Your task to perform on an android device: remove spam from my inbox in the gmail app Image 0: 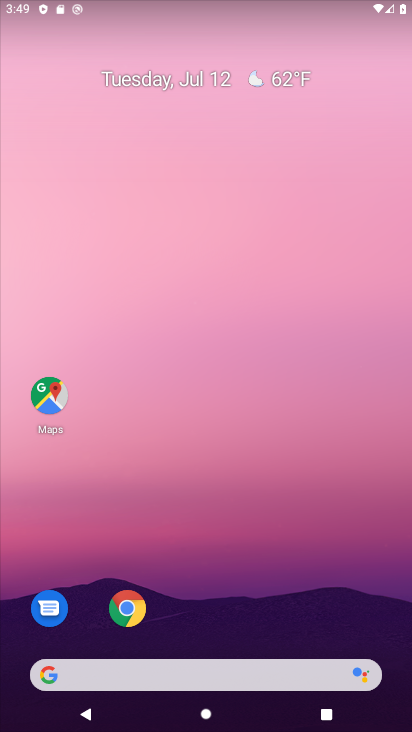
Step 0: drag from (235, 530) to (333, 171)
Your task to perform on an android device: remove spam from my inbox in the gmail app Image 1: 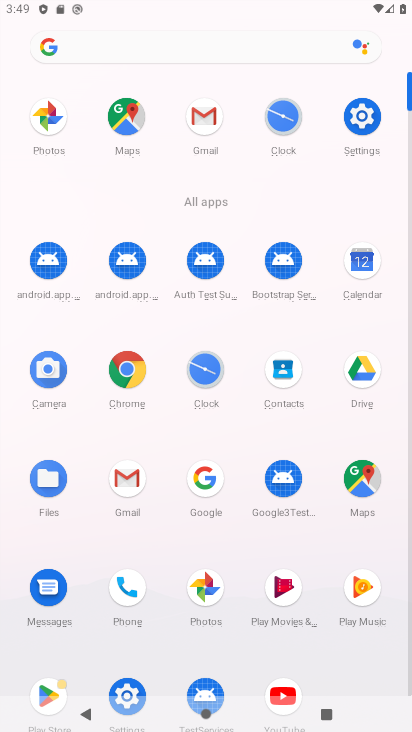
Step 1: click (124, 497)
Your task to perform on an android device: remove spam from my inbox in the gmail app Image 2: 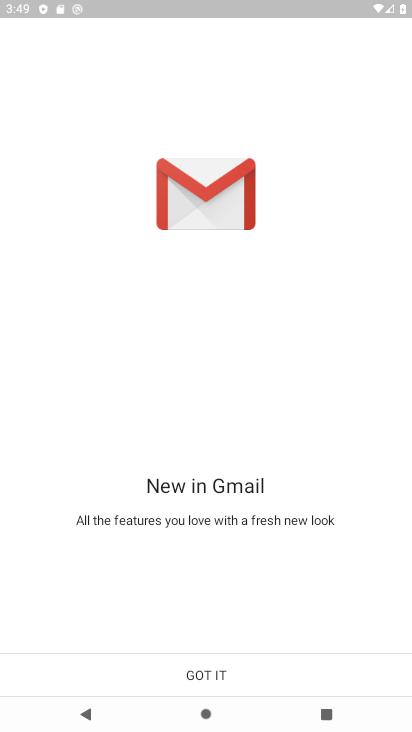
Step 2: click (217, 677)
Your task to perform on an android device: remove spam from my inbox in the gmail app Image 3: 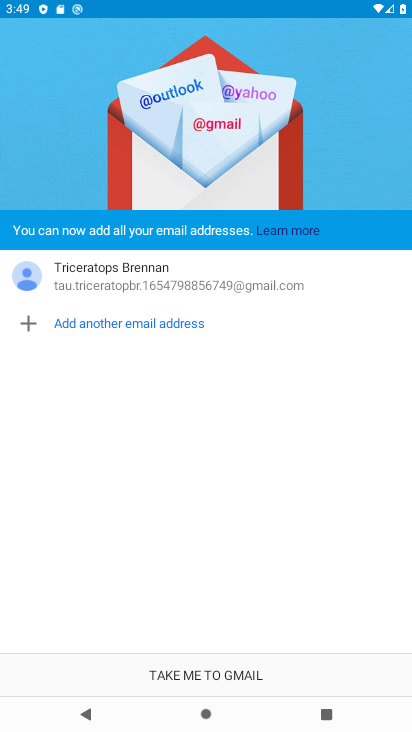
Step 3: click (222, 677)
Your task to perform on an android device: remove spam from my inbox in the gmail app Image 4: 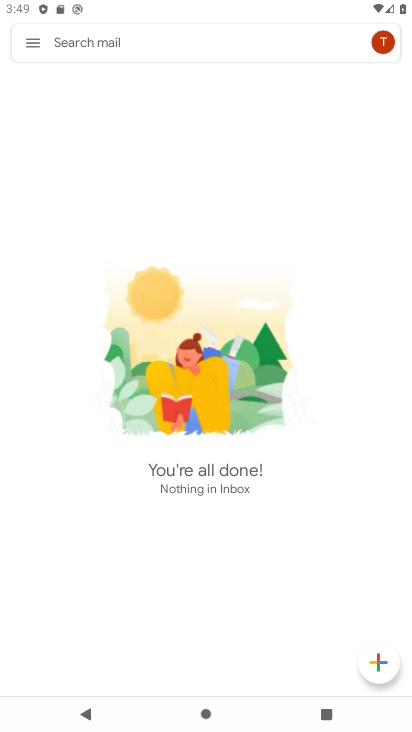
Step 4: click (35, 45)
Your task to perform on an android device: remove spam from my inbox in the gmail app Image 5: 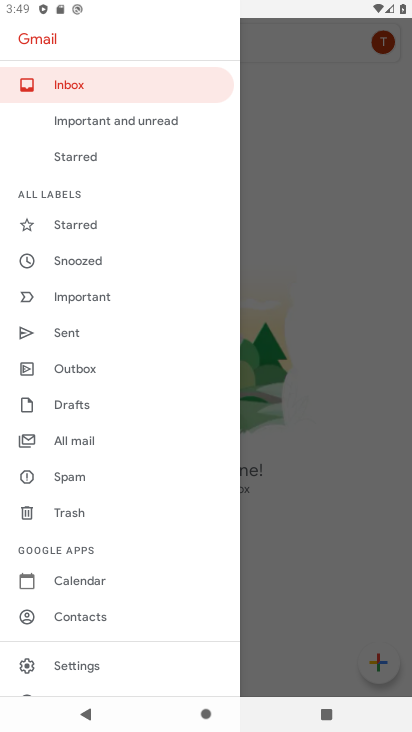
Step 5: click (69, 481)
Your task to perform on an android device: remove spam from my inbox in the gmail app Image 6: 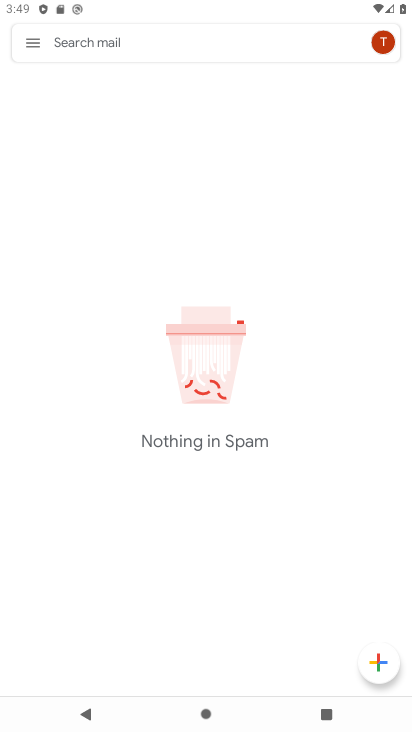
Step 6: task complete